Your task to perform on an android device: Open the map Image 0: 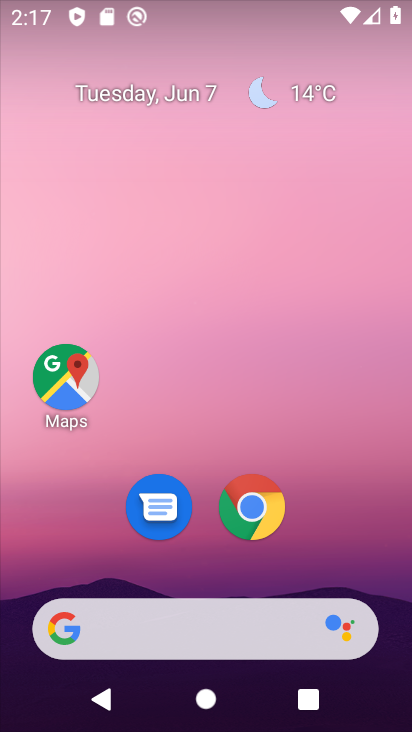
Step 0: click (63, 380)
Your task to perform on an android device: Open the map Image 1: 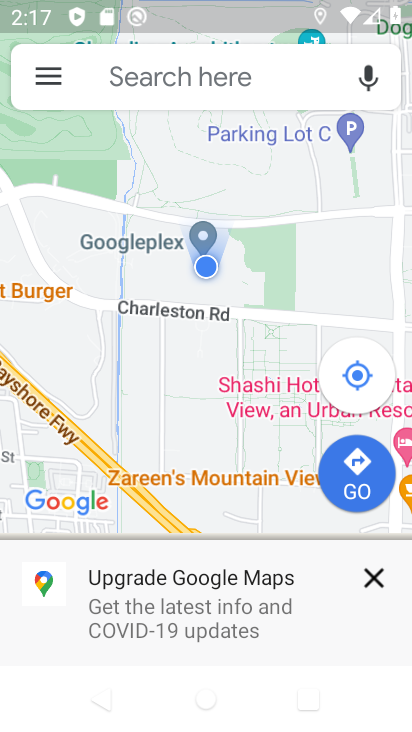
Step 1: task complete